Your task to perform on an android device: change alarm snooze length Image 0: 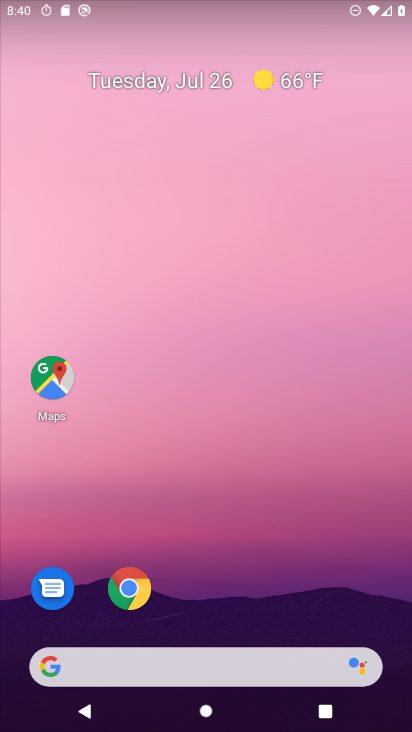
Step 0: drag from (225, 716) to (225, 141)
Your task to perform on an android device: change alarm snooze length Image 1: 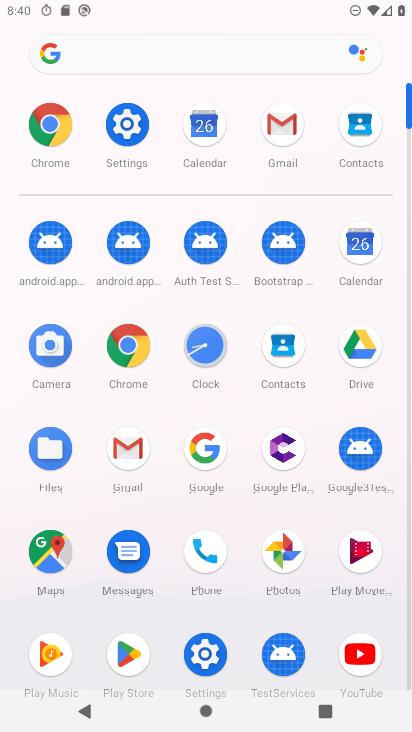
Step 1: click (210, 349)
Your task to perform on an android device: change alarm snooze length Image 2: 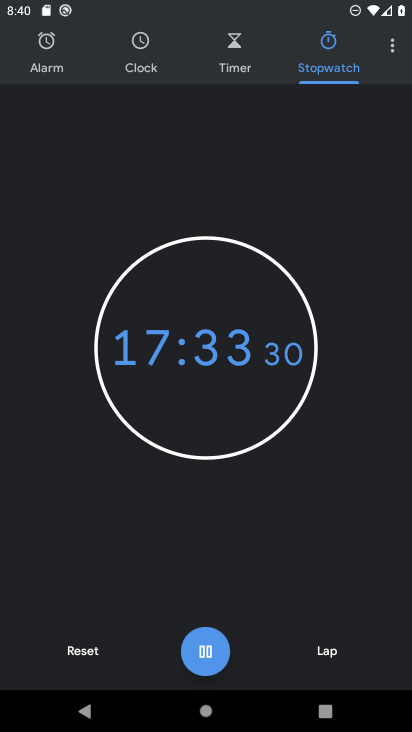
Step 2: click (395, 51)
Your task to perform on an android device: change alarm snooze length Image 3: 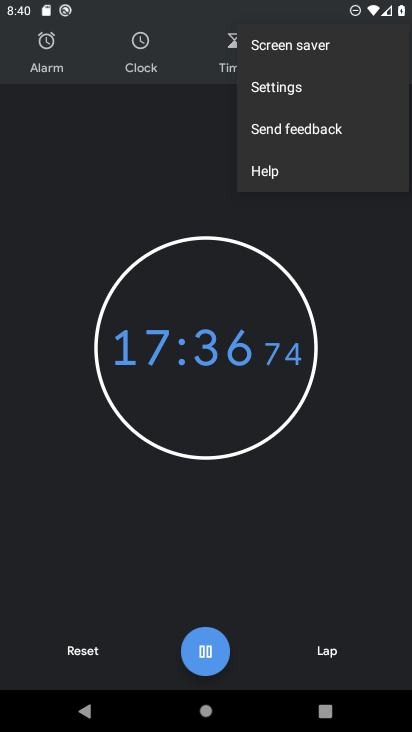
Step 3: click (277, 88)
Your task to perform on an android device: change alarm snooze length Image 4: 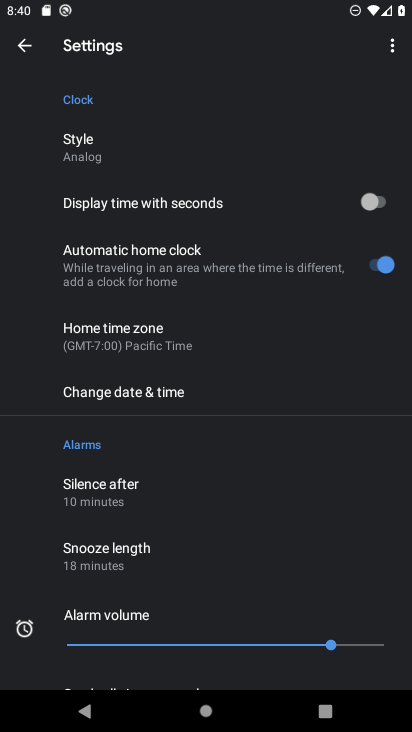
Step 4: click (94, 563)
Your task to perform on an android device: change alarm snooze length Image 5: 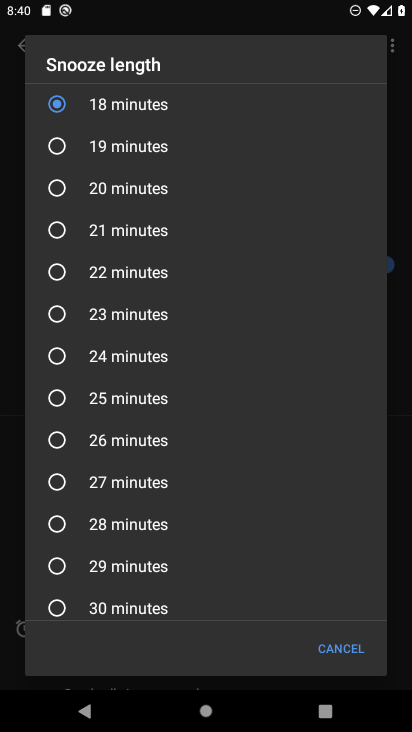
Step 5: click (52, 570)
Your task to perform on an android device: change alarm snooze length Image 6: 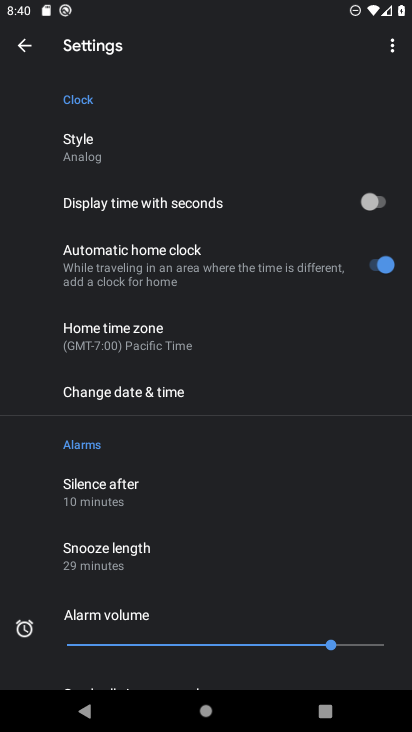
Step 6: task complete